Your task to perform on an android device: change the clock display to digital Image 0: 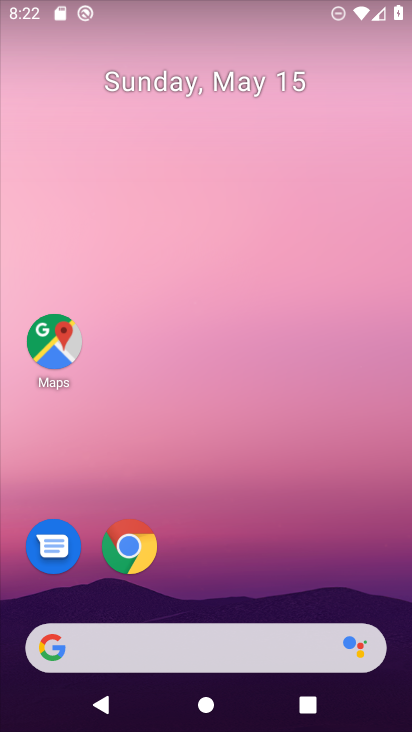
Step 0: drag from (285, 544) to (259, 81)
Your task to perform on an android device: change the clock display to digital Image 1: 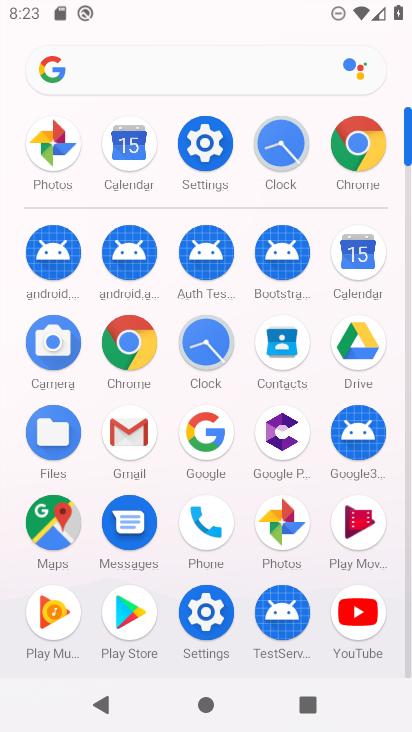
Step 1: click (276, 148)
Your task to perform on an android device: change the clock display to digital Image 2: 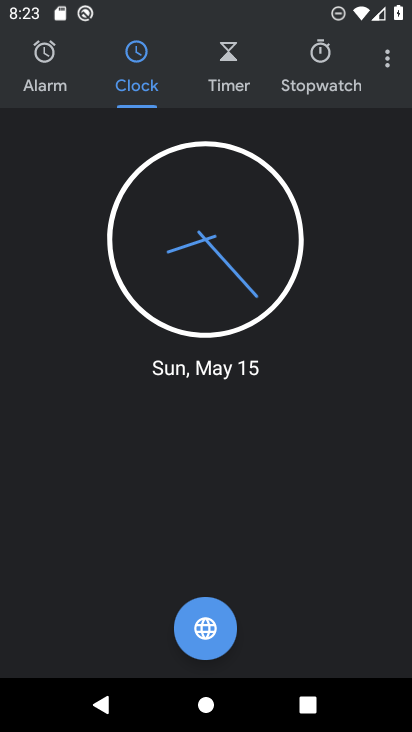
Step 2: click (386, 52)
Your task to perform on an android device: change the clock display to digital Image 3: 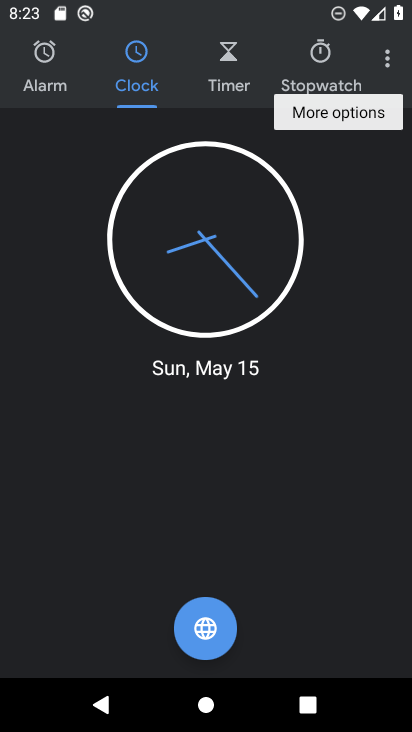
Step 3: click (383, 60)
Your task to perform on an android device: change the clock display to digital Image 4: 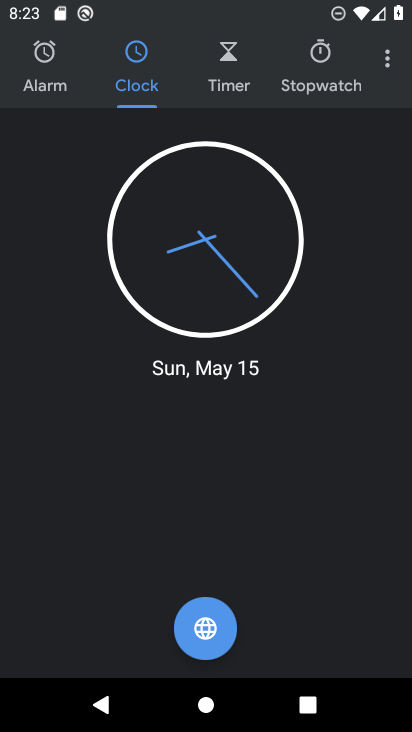
Step 4: click (383, 60)
Your task to perform on an android device: change the clock display to digital Image 5: 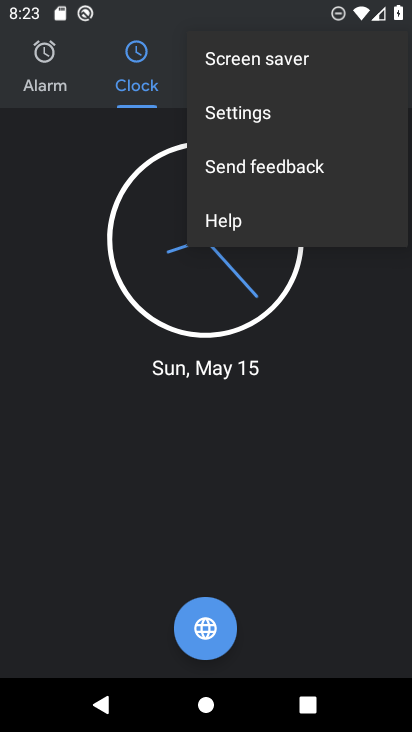
Step 5: click (310, 124)
Your task to perform on an android device: change the clock display to digital Image 6: 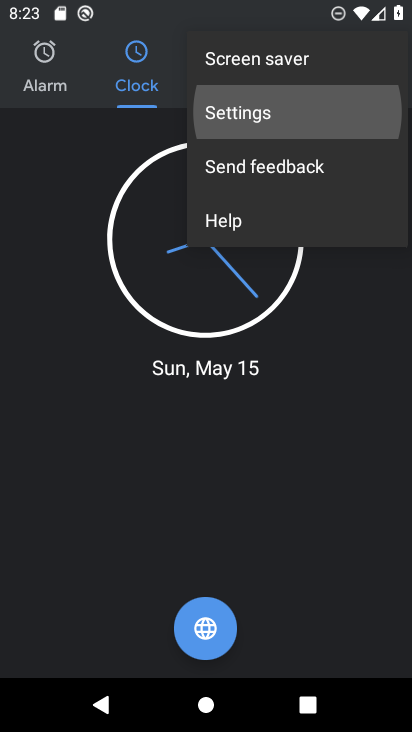
Step 6: click (310, 124)
Your task to perform on an android device: change the clock display to digital Image 7: 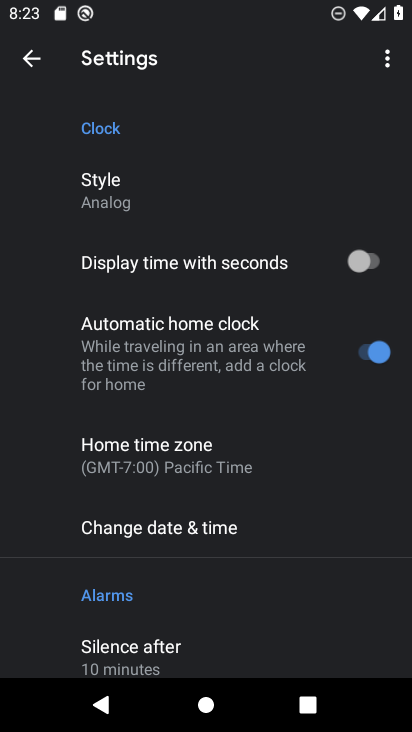
Step 7: click (166, 190)
Your task to perform on an android device: change the clock display to digital Image 8: 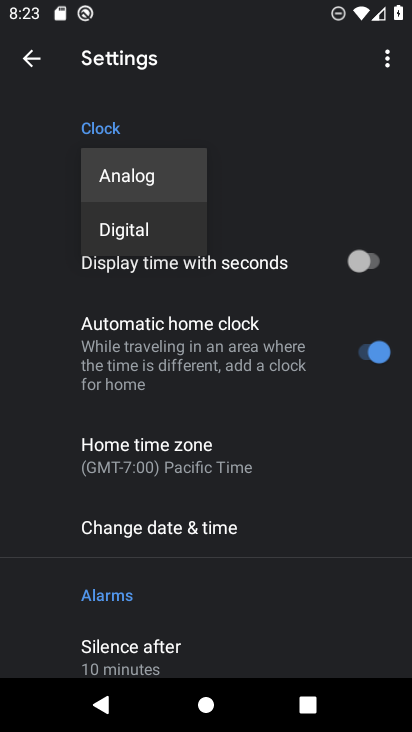
Step 8: click (166, 229)
Your task to perform on an android device: change the clock display to digital Image 9: 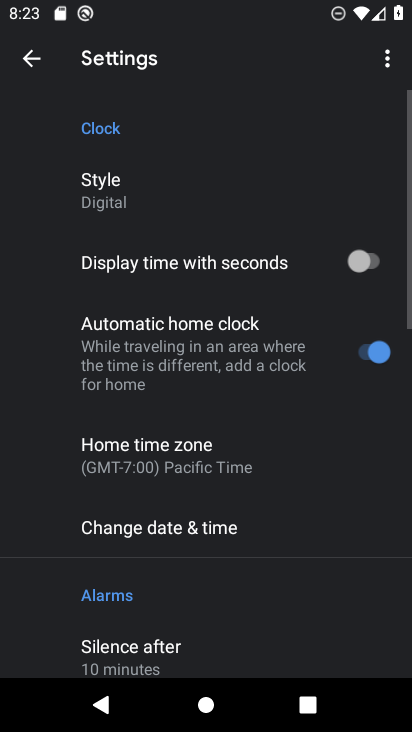
Step 9: click (24, 57)
Your task to perform on an android device: change the clock display to digital Image 10: 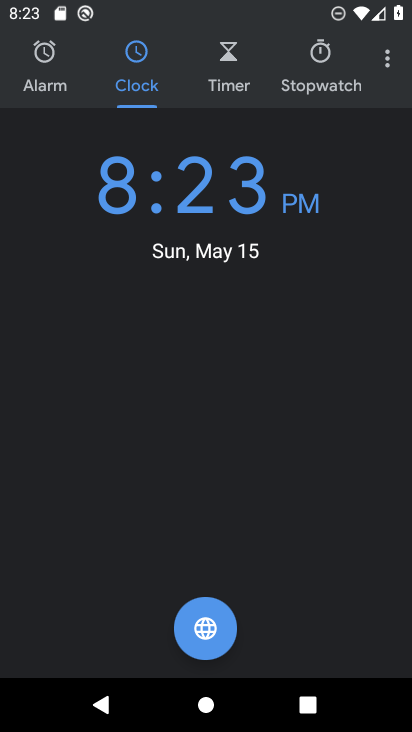
Step 10: task complete